Your task to perform on an android device: Add lg ultragear to the cart on bestbuy.com, then select checkout. Image 0: 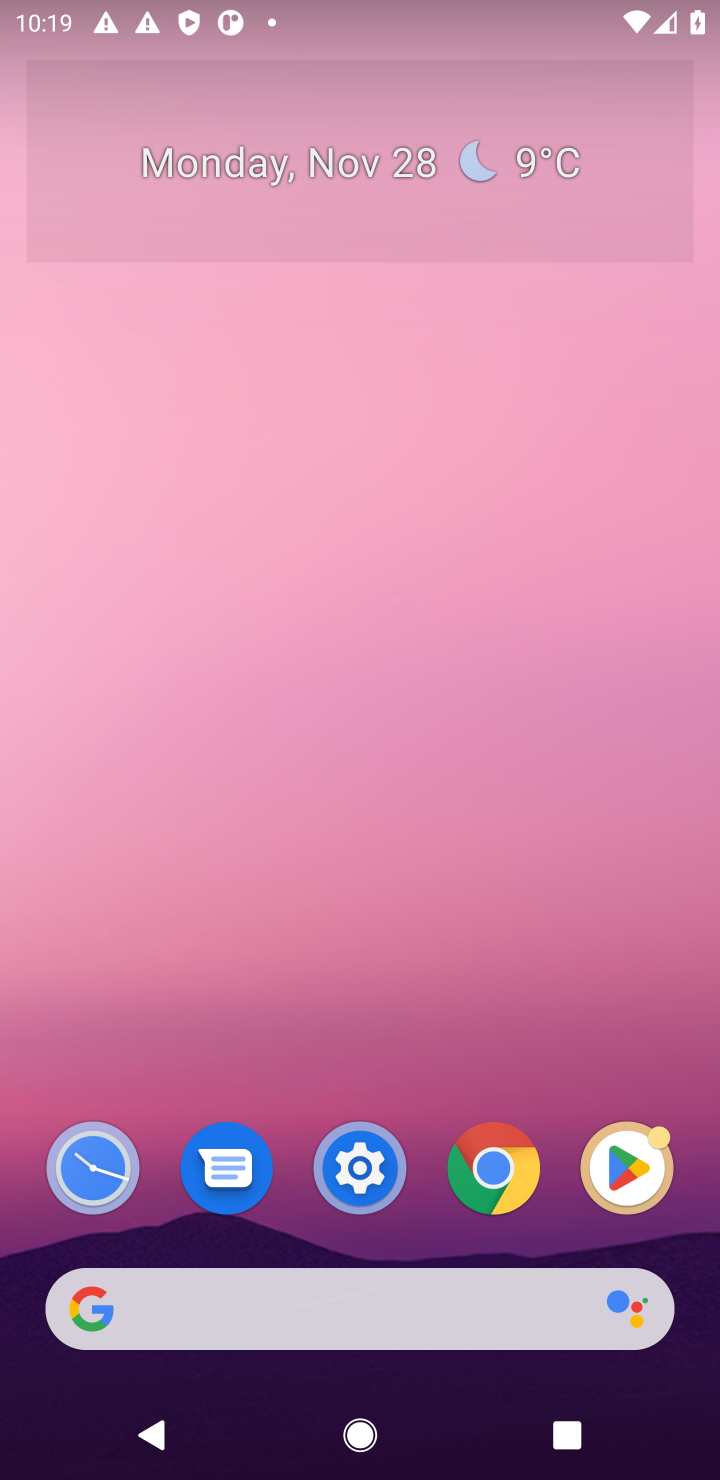
Step 0: click (431, 1314)
Your task to perform on an android device: Add lg ultragear to the cart on bestbuy.com, then select checkout. Image 1: 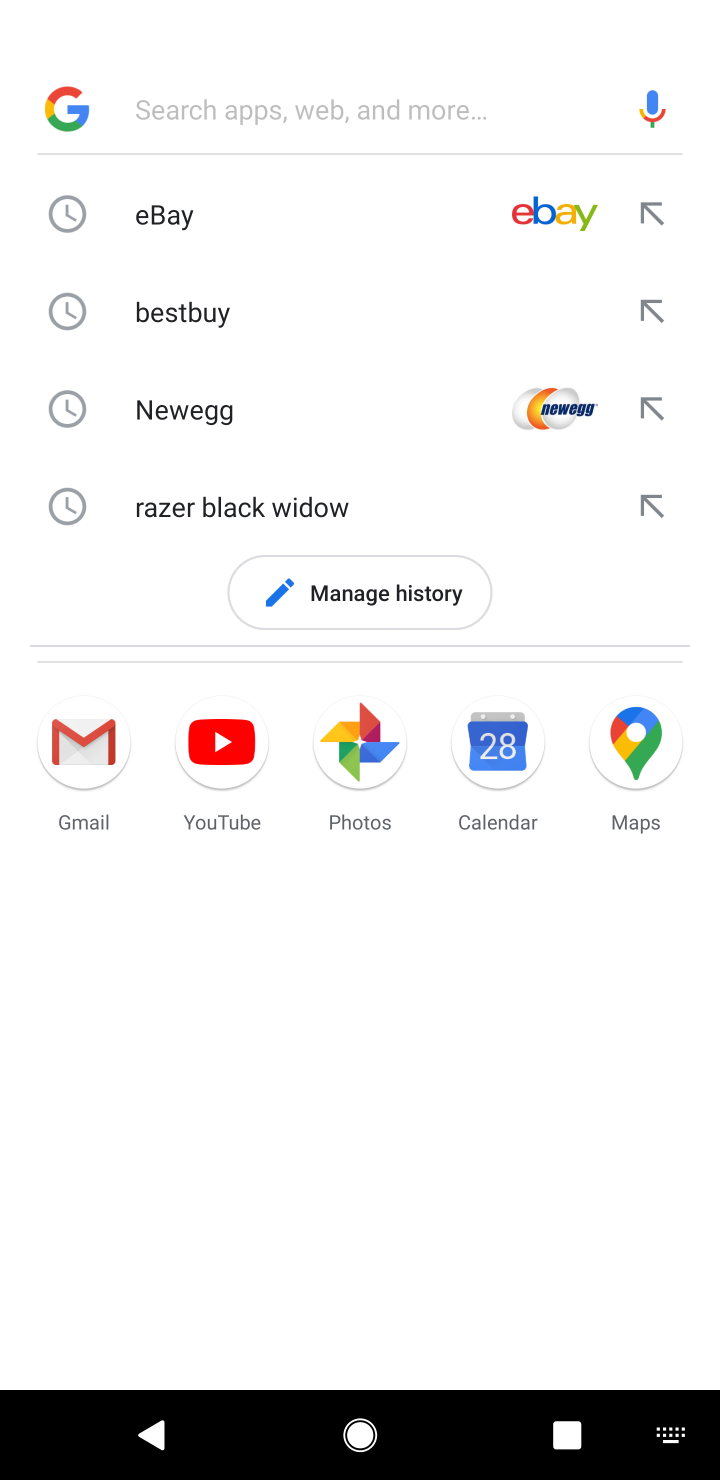
Step 1: type "bestbuy"
Your task to perform on an android device: Add lg ultragear to the cart on bestbuy.com, then select checkout. Image 2: 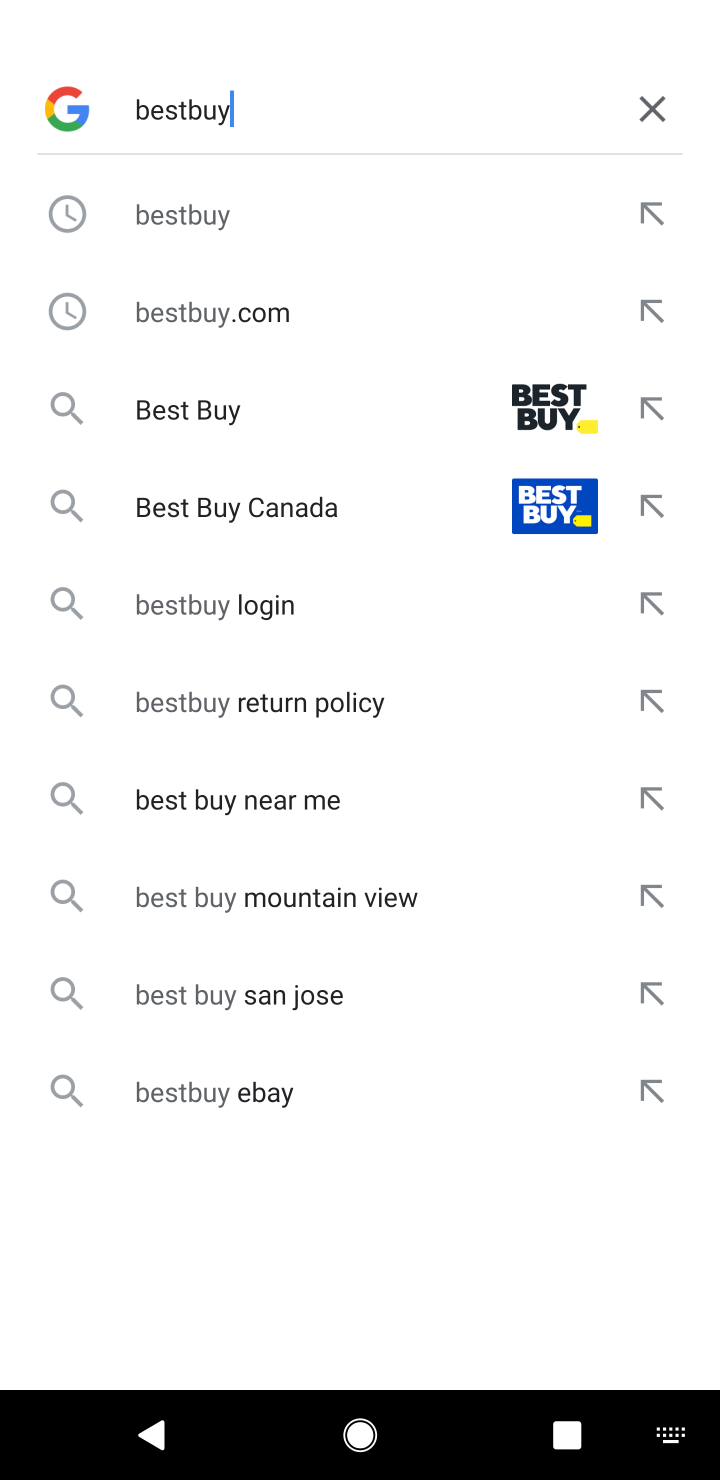
Step 2: click (267, 212)
Your task to perform on an android device: Add lg ultragear to the cart on bestbuy.com, then select checkout. Image 3: 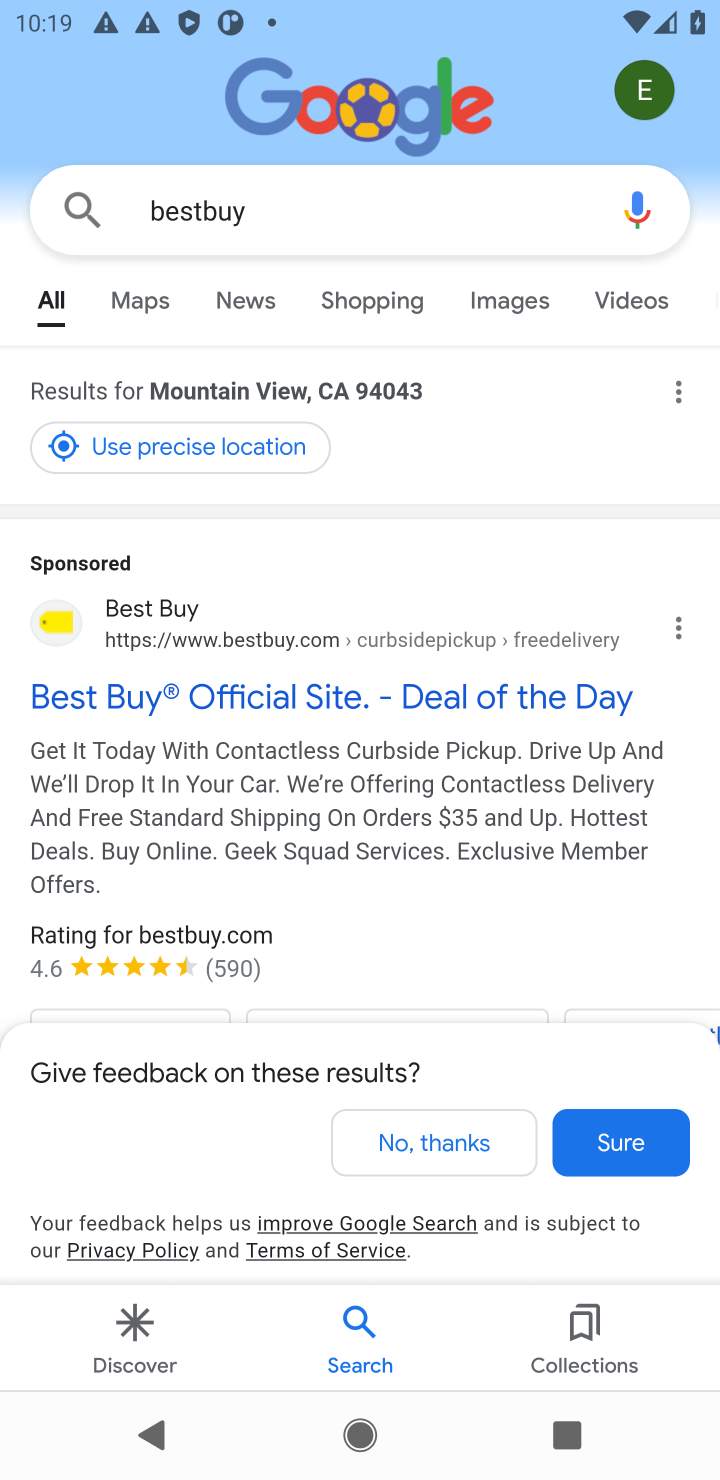
Step 3: click (58, 722)
Your task to perform on an android device: Add lg ultragear to the cart on bestbuy.com, then select checkout. Image 4: 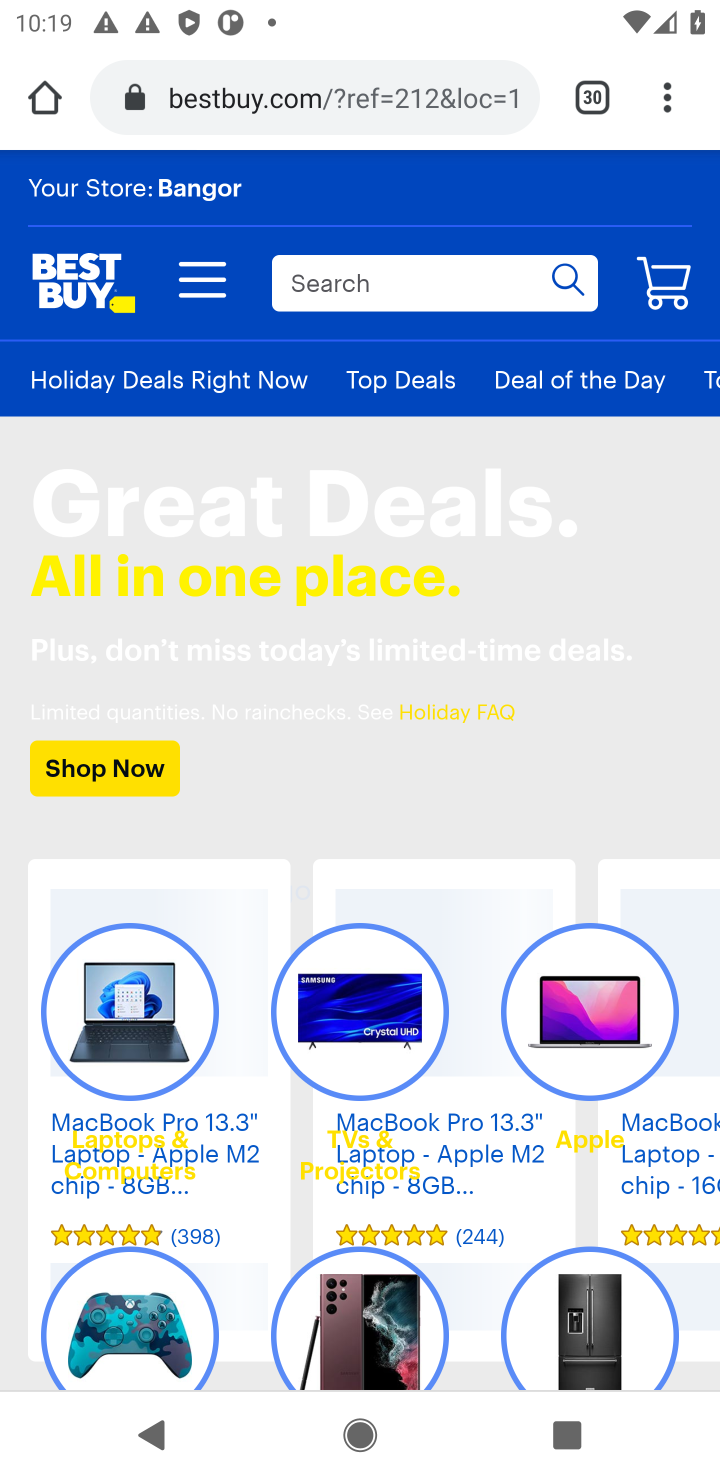
Step 4: click (351, 289)
Your task to perform on an android device: Add lg ultragear to the cart on bestbuy.com, then select checkout. Image 5: 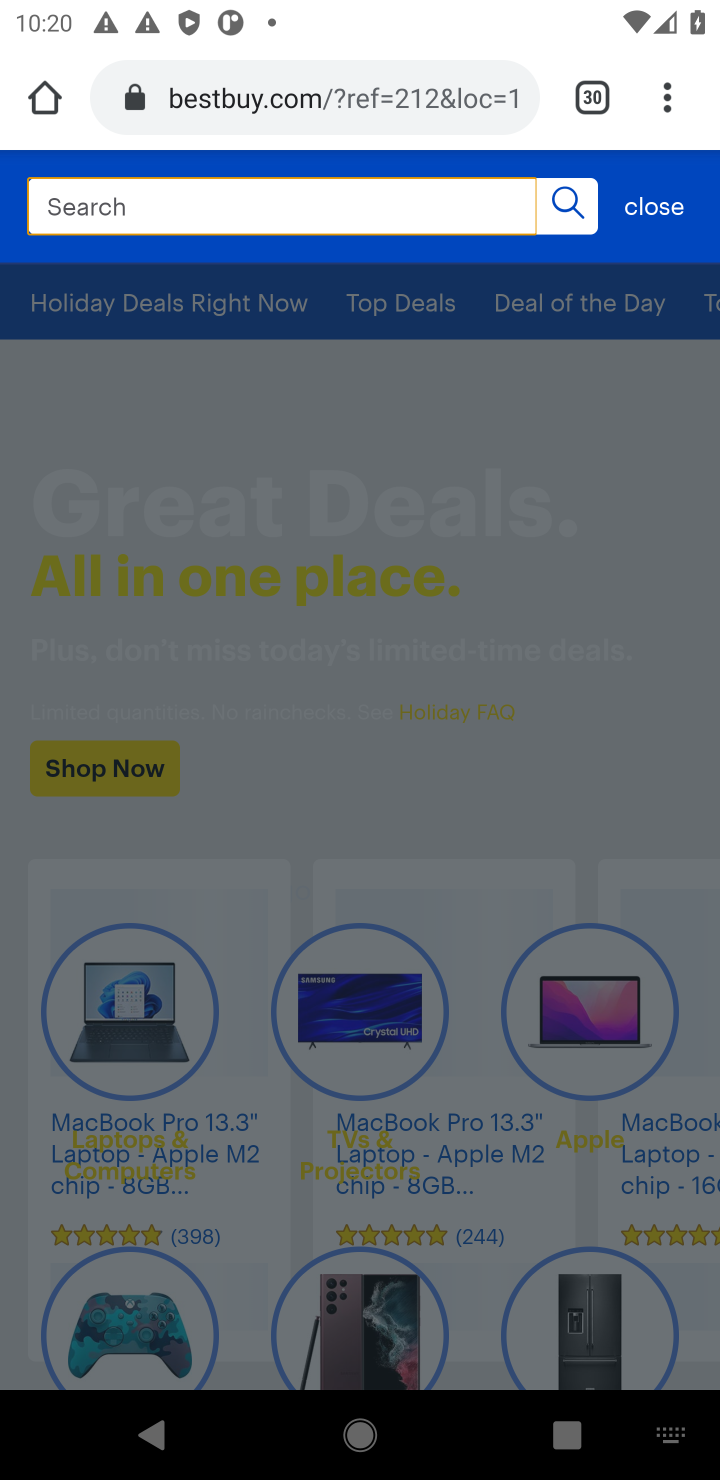
Step 5: type "lg ultra gear"
Your task to perform on an android device: Add lg ultragear to the cart on bestbuy.com, then select checkout. Image 6: 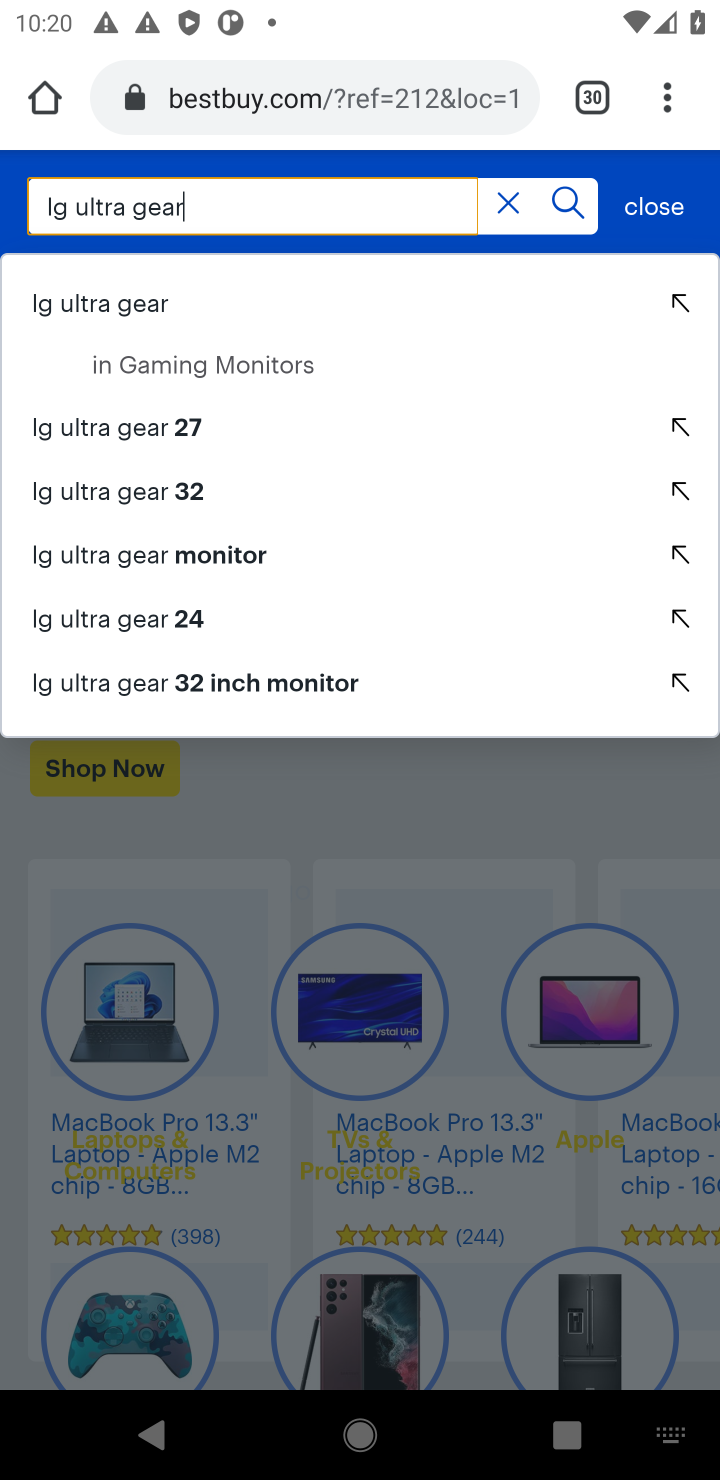
Step 6: click (50, 295)
Your task to perform on an android device: Add lg ultragear to the cart on bestbuy.com, then select checkout. Image 7: 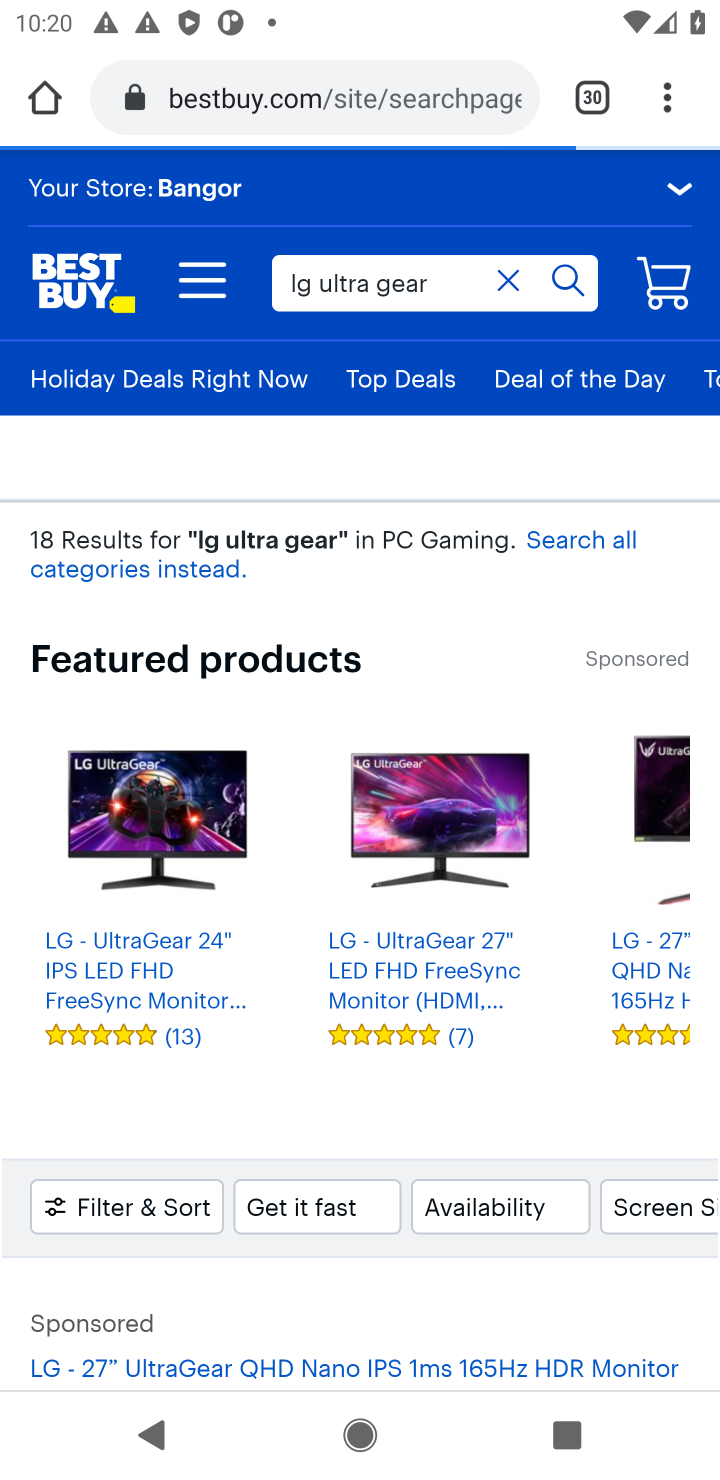
Step 7: task complete